Your task to perform on an android device: turn off wifi Image 0: 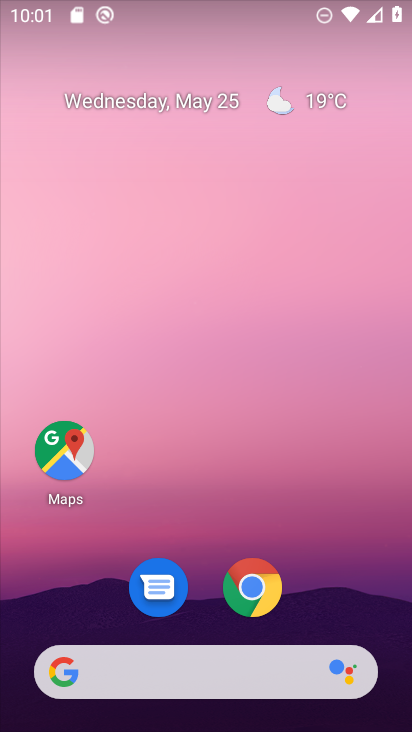
Step 0: drag from (388, 622) to (329, 65)
Your task to perform on an android device: turn off wifi Image 1: 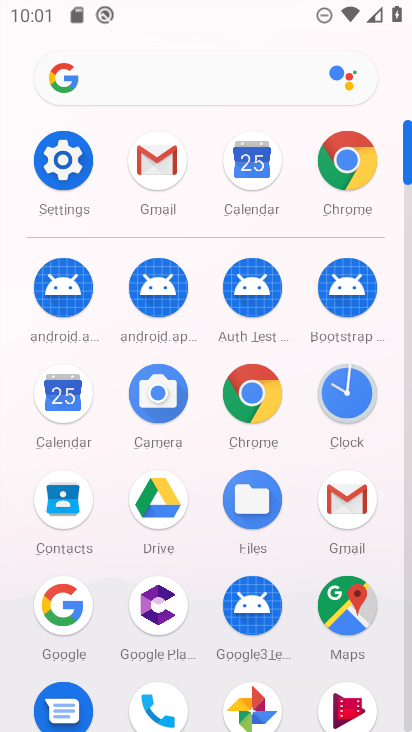
Step 1: click (408, 701)
Your task to perform on an android device: turn off wifi Image 2: 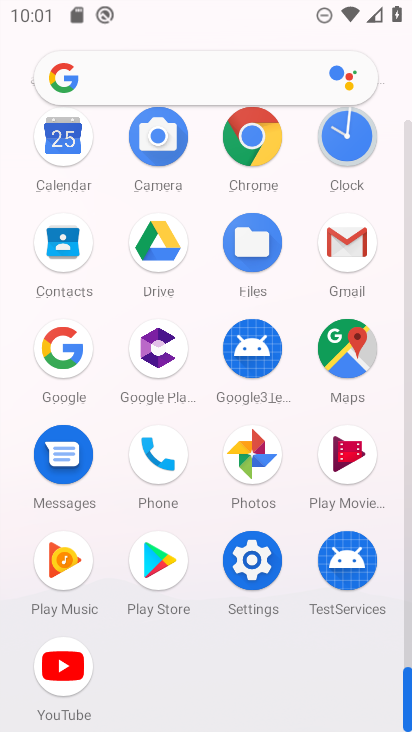
Step 2: click (253, 562)
Your task to perform on an android device: turn off wifi Image 3: 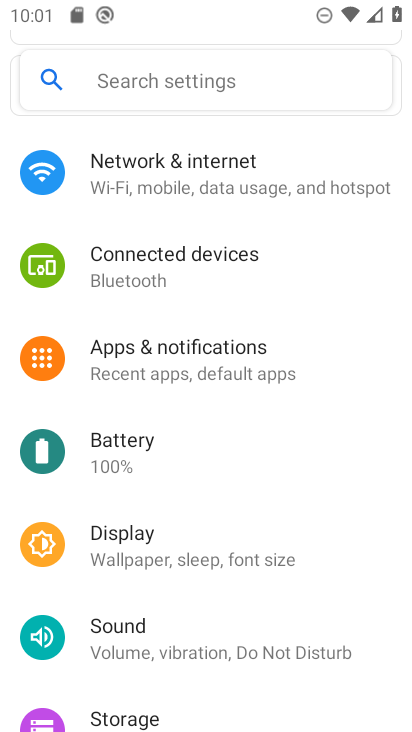
Step 3: click (163, 169)
Your task to perform on an android device: turn off wifi Image 4: 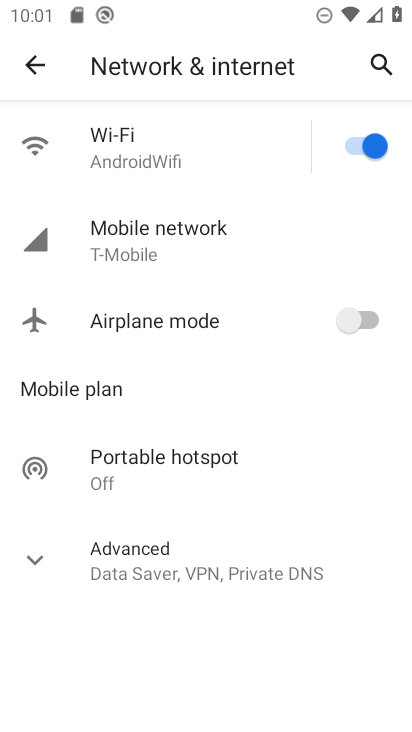
Step 4: click (352, 147)
Your task to perform on an android device: turn off wifi Image 5: 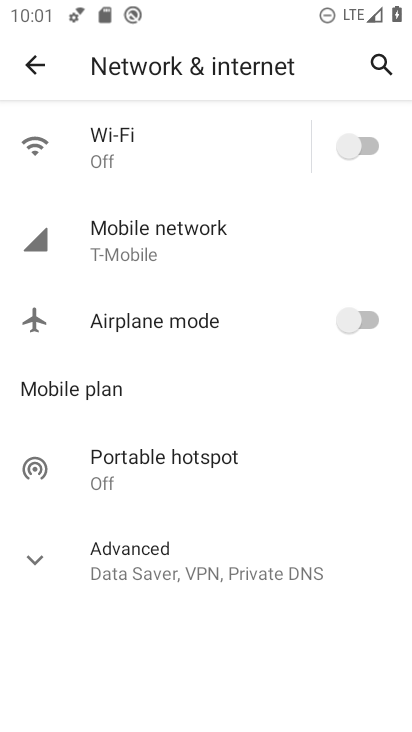
Step 5: task complete